Your task to perform on an android device: Open the web browser Image 0: 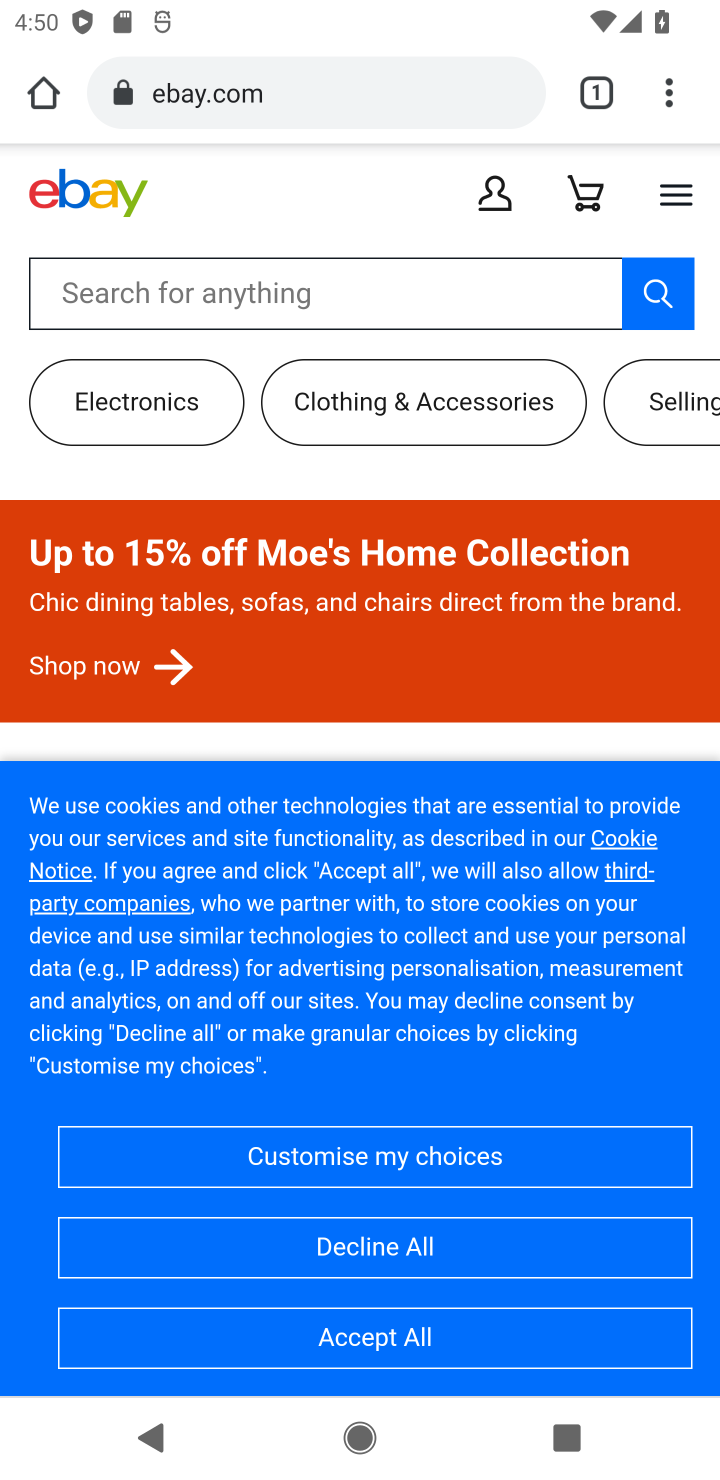
Step 0: task complete